Your task to perform on an android device: Open eBay Image 0: 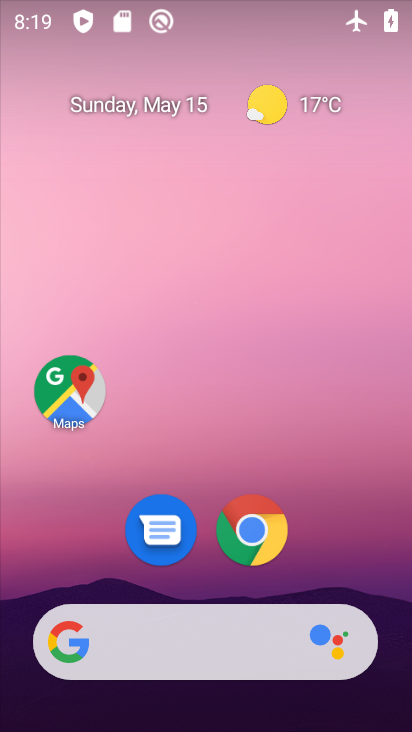
Step 0: click (256, 540)
Your task to perform on an android device: Open eBay Image 1: 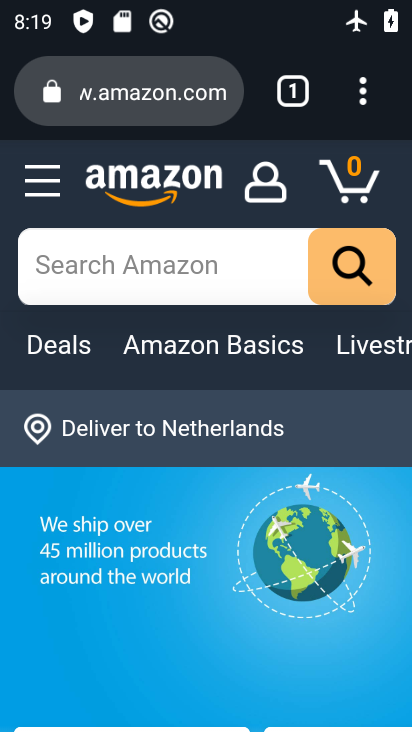
Step 1: click (364, 103)
Your task to perform on an android device: Open eBay Image 2: 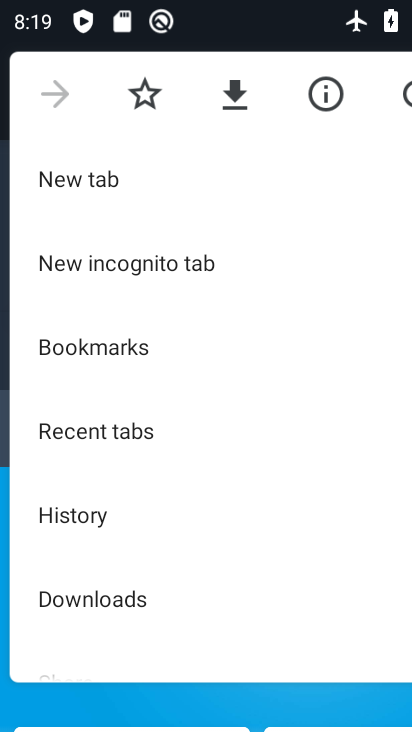
Step 2: click (78, 182)
Your task to perform on an android device: Open eBay Image 3: 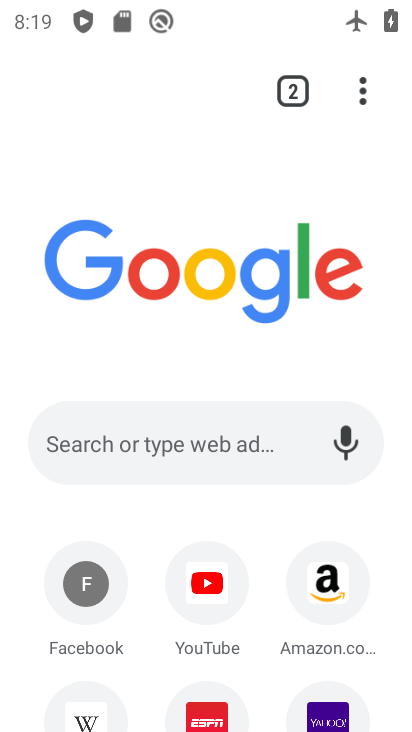
Step 3: click (168, 445)
Your task to perform on an android device: Open eBay Image 4: 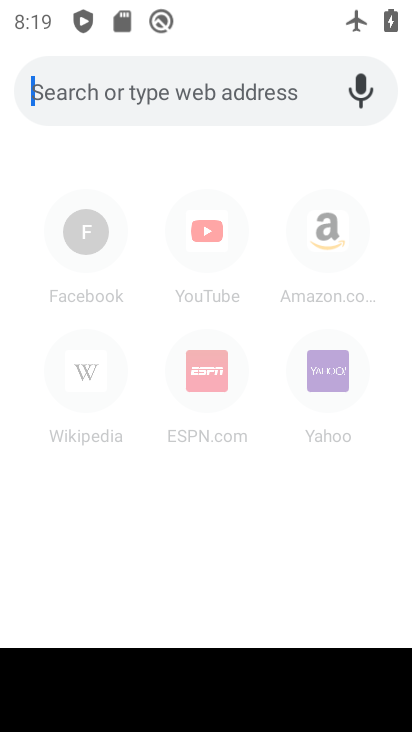
Step 4: type "eBay"
Your task to perform on an android device: Open eBay Image 5: 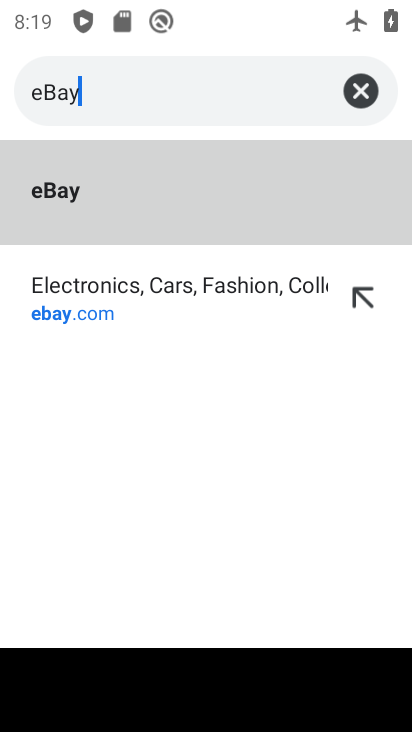
Step 5: click (171, 198)
Your task to perform on an android device: Open eBay Image 6: 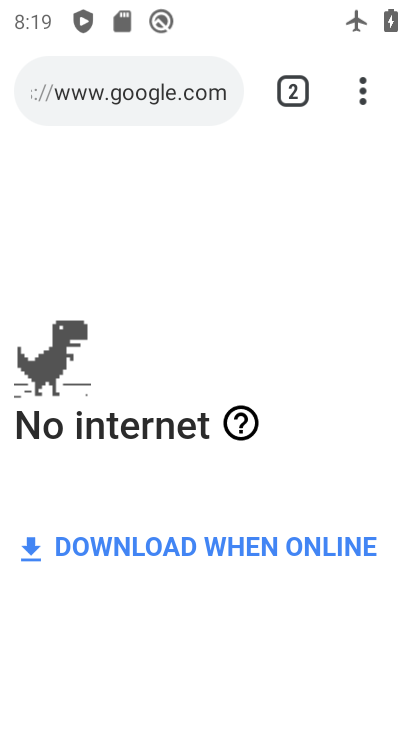
Step 6: task complete